Your task to perform on an android device: What's a good restaurant in Los Angeles? Image 0: 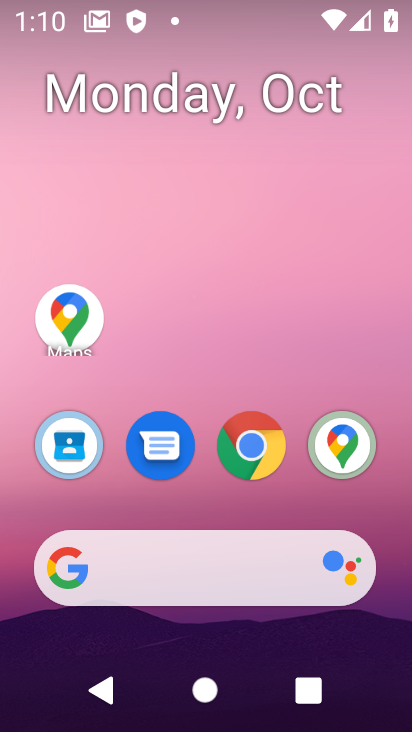
Step 0: click (205, 583)
Your task to perform on an android device: What's a good restaurant in Los Angeles? Image 1: 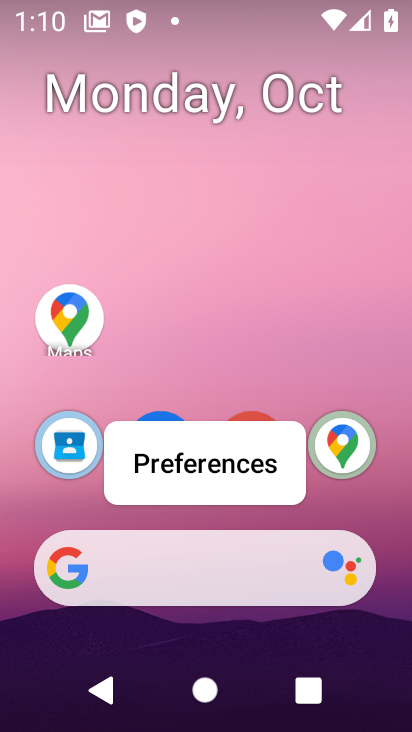
Step 1: click (200, 571)
Your task to perform on an android device: What's a good restaurant in Los Angeles? Image 2: 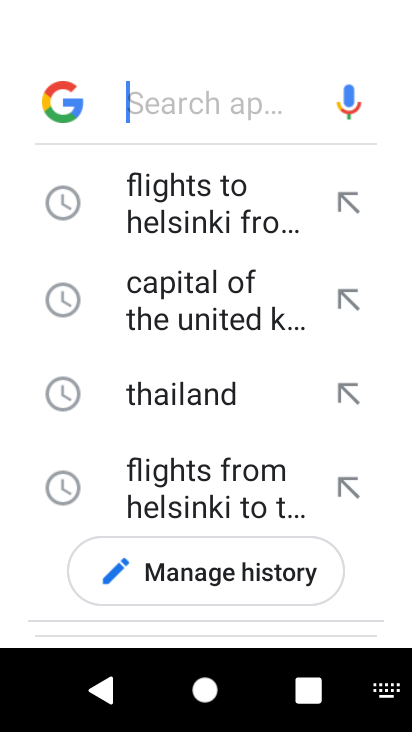
Step 2: type "good restaurant in Los Angeles"
Your task to perform on an android device: What's a good restaurant in Los Angeles? Image 3: 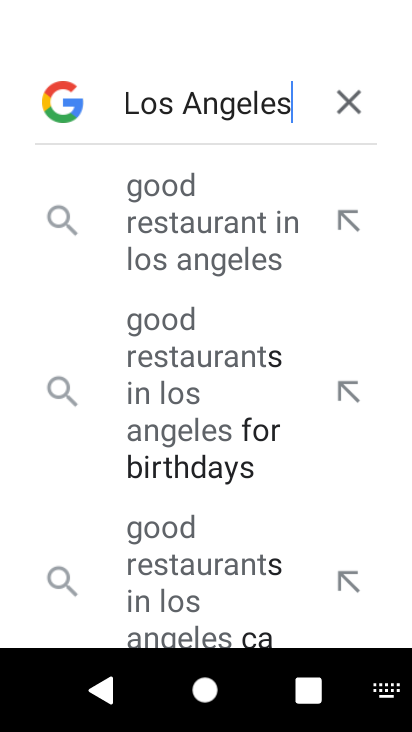
Step 3: type ""
Your task to perform on an android device: What's a good restaurant in Los Angeles? Image 4: 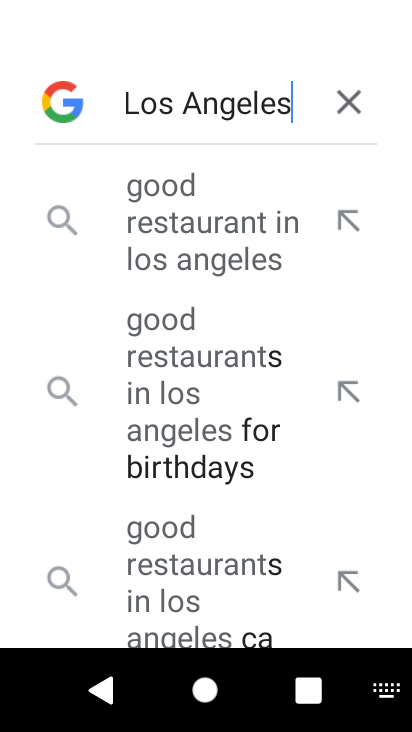
Step 4: click (161, 222)
Your task to perform on an android device: What's a good restaurant in Los Angeles? Image 5: 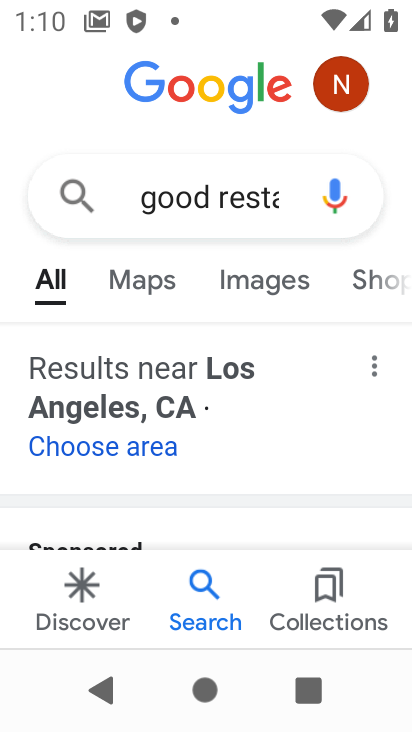
Step 5: task complete